Your task to perform on an android device: turn off smart reply in the gmail app Image 0: 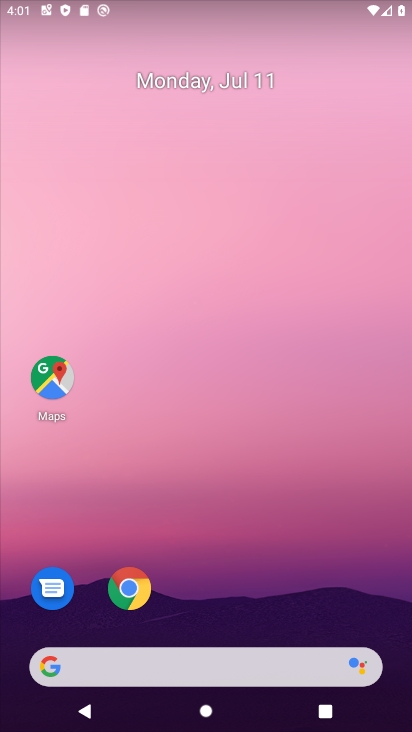
Step 0: press home button
Your task to perform on an android device: turn off smart reply in the gmail app Image 1: 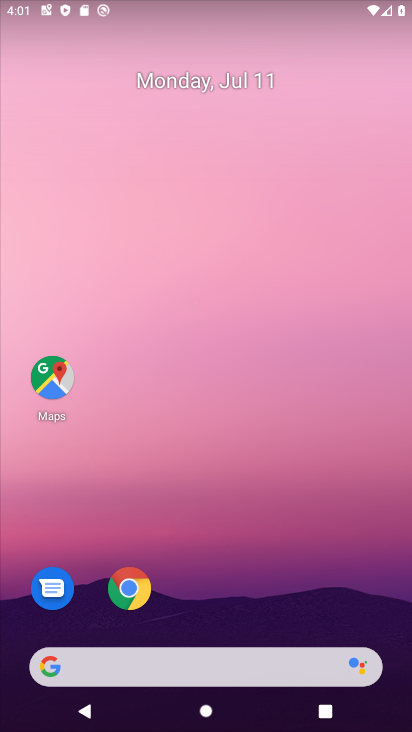
Step 1: drag from (215, 411) to (220, 116)
Your task to perform on an android device: turn off smart reply in the gmail app Image 2: 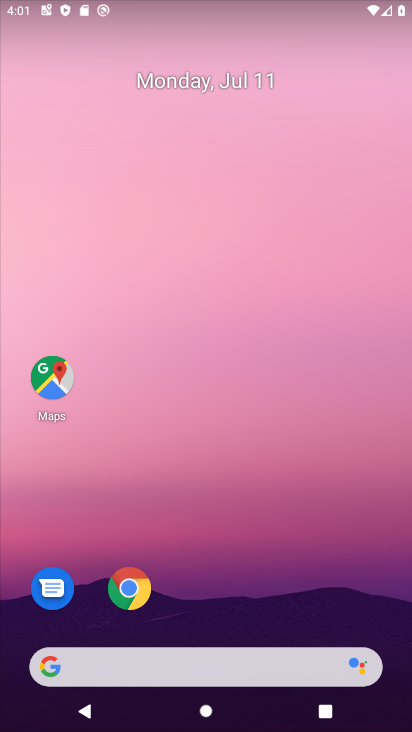
Step 2: drag from (302, 581) to (259, 139)
Your task to perform on an android device: turn off smart reply in the gmail app Image 3: 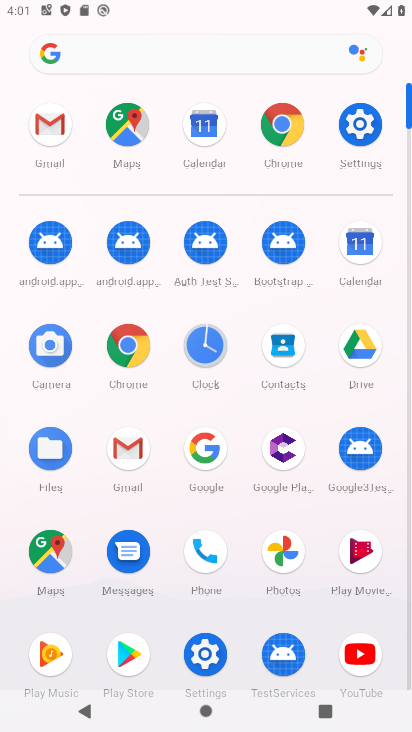
Step 3: click (53, 138)
Your task to perform on an android device: turn off smart reply in the gmail app Image 4: 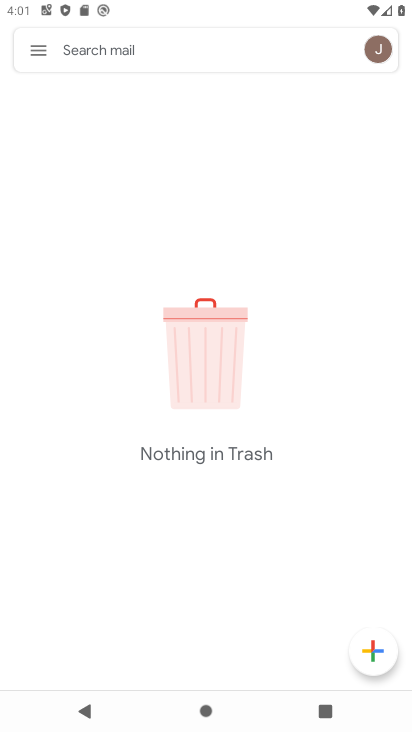
Step 4: click (38, 51)
Your task to perform on an android device: turn off smart reply in the gmail app Image 5: 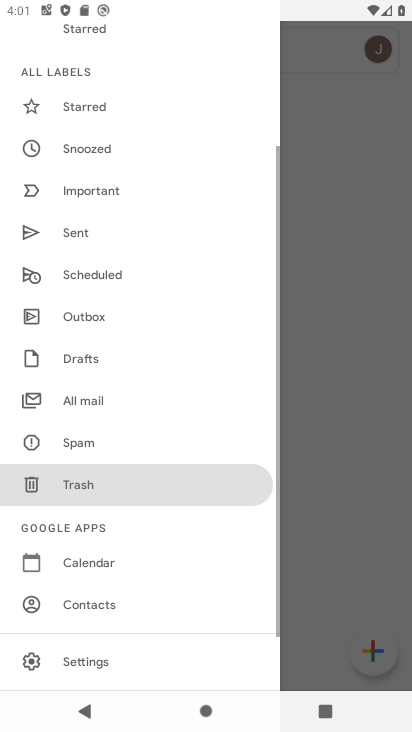
Step 5: drag from (38, 51) to (123, 246)
Your task to perform on an android device: turn off smart reply in the gmail app Image 6: 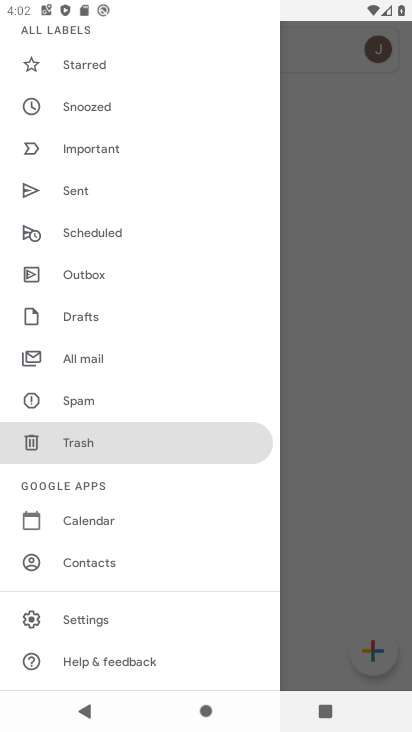
Step 6: click (83, 620)
Your task to perform on an android device: turn off smart reply in the gmail app Image 7: 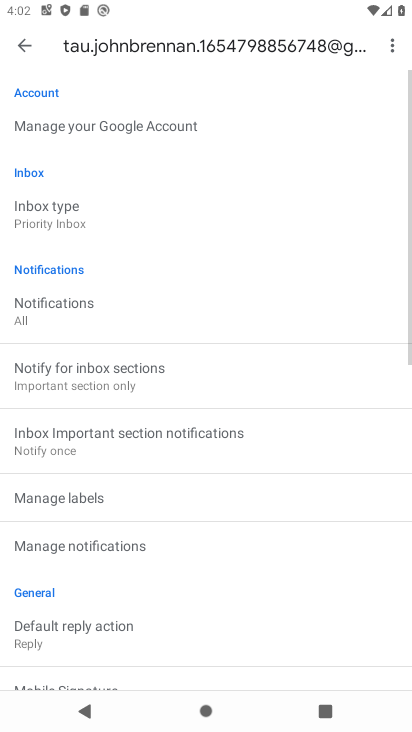
Step 7: drag from (303, 610) to (277, 161)
Your task to perform on an android device: turn off smart reply in the gmail app Image 8: 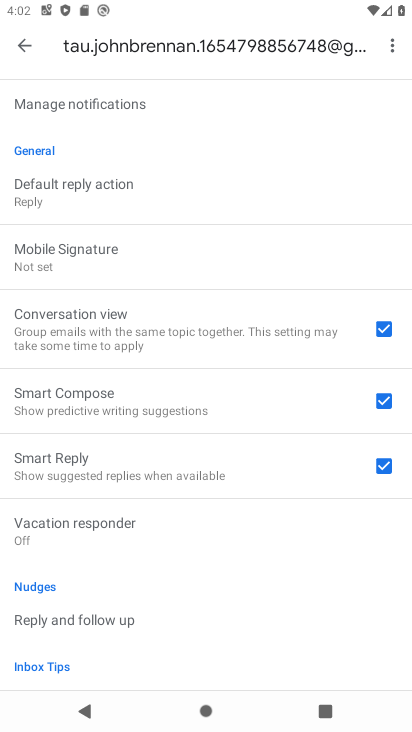
Step 8: click (383, 464)
Your task to perform on an android device: turn off smart reply in the gmail app Image 9: 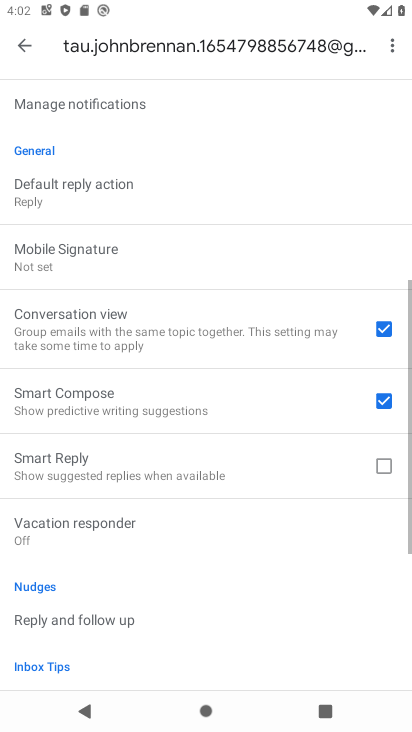
Step 9: task complete